Your task to perform on an android device: Open the Play Movies app and select the watchlist tab. Image 0: 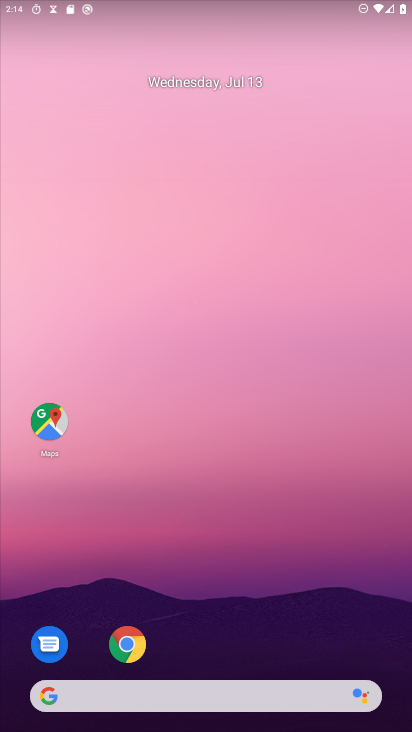
Step 0: press home button
Your task to perform on an android device: Open the Play Movies app and select the watchlist tab. Image 1: 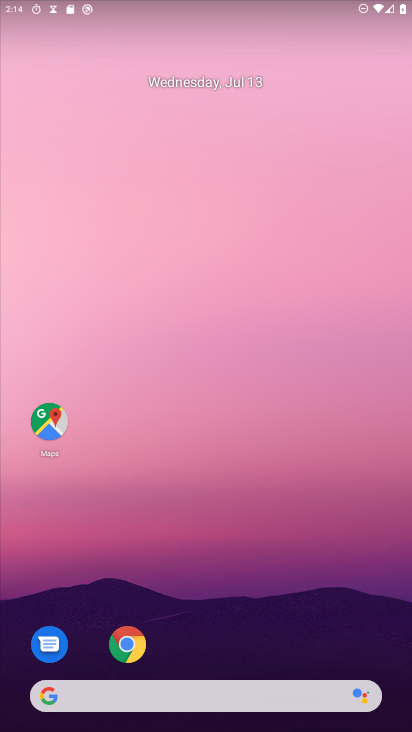
Step 1: drag from (203, 582) to (231, 104)
Your task to perform on an android device: Open the Play Movies app and select the watchlist tab. Image 2: 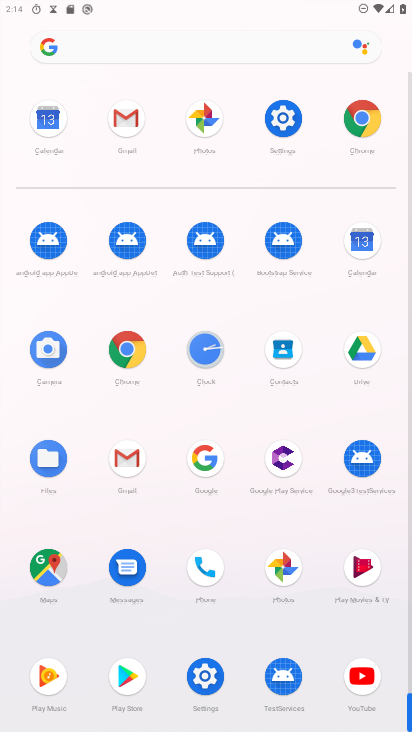
Step 2: click (364, 562)
Your task to perform on an android device: Open the Play Movies app and select the watchlist tab. Image 3: 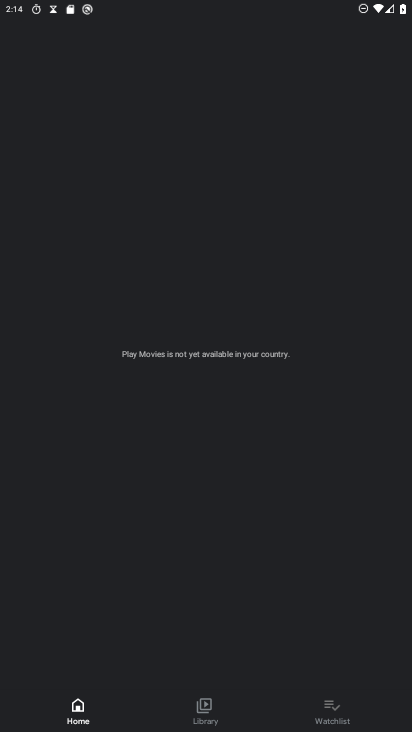
Step 3: click (326, 707)
Your task to perform on an android device: Open the Play Movies app and select the watchlist tab. Image 4: 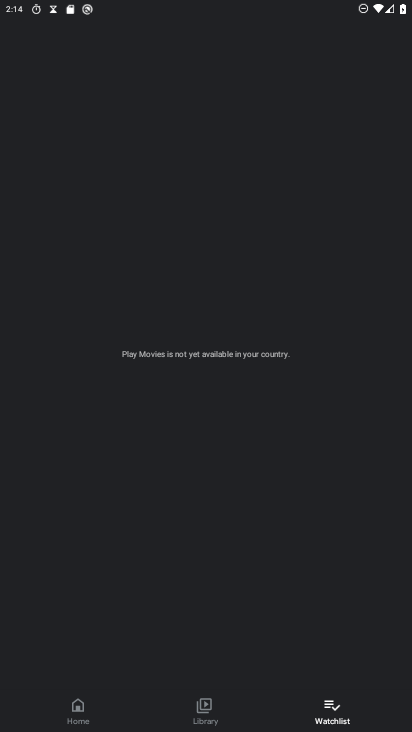
Step 4: task complete